Your task to perform on an android device: toggle airplane mode Image 0: 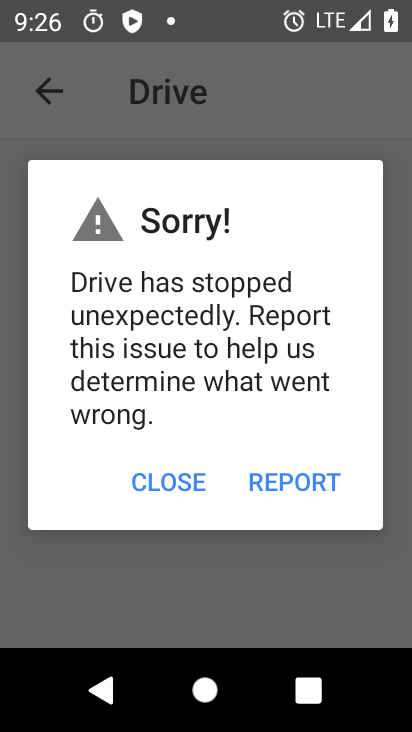
Step 0: press home button
Your task to perform on an android device: toggle airplane mode Image 1: 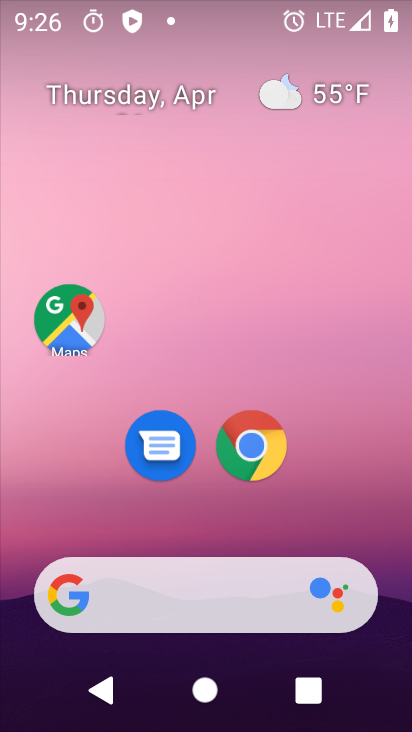
Step 1: drag from (380, 518) to (314, 1)
Your task to perform on an android device: toggle airplane mode Image 2: 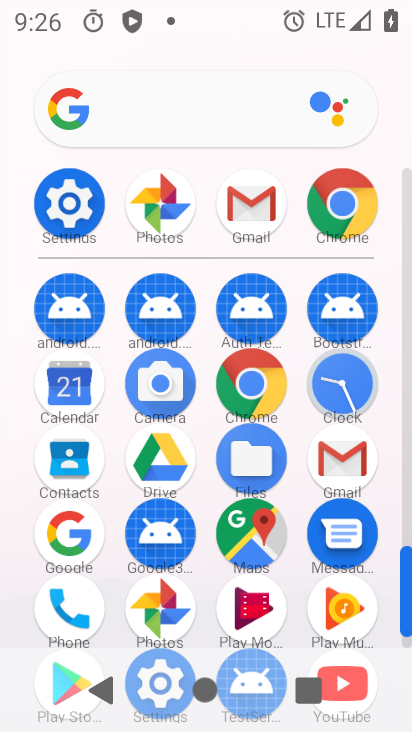
Step 2: click (74, 206)
Your task to perform on an android device: toggle airplane mode Image 3: 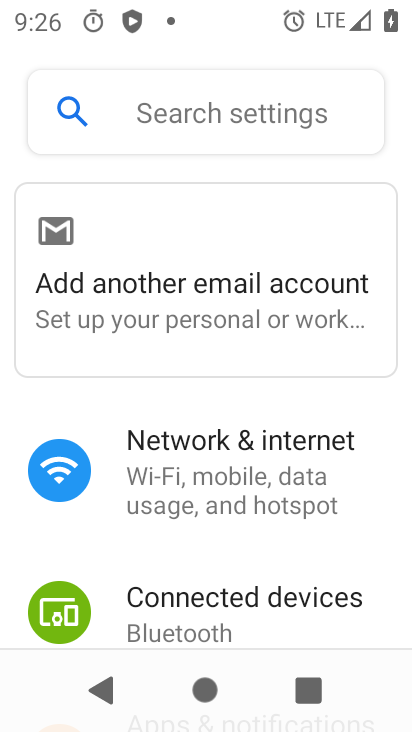
Step 3: click (276, 496)
Your task to perform on an android device: toggle airplane mode Image 4: 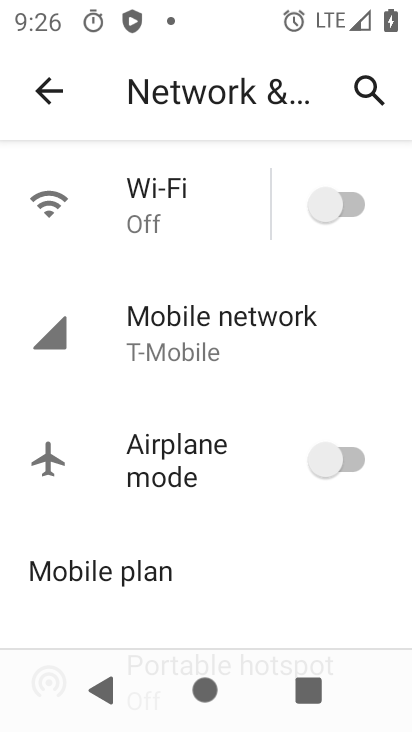
Step 4: click (312, 460)
Your task to perform on an android device: toggle airplane mode Image 5: 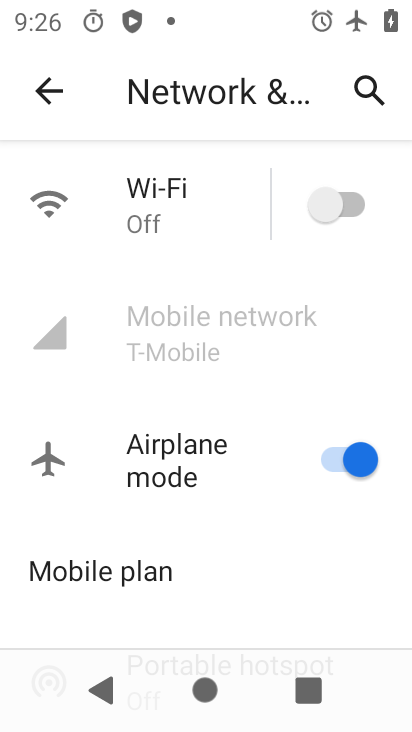
Step 5: task complete